Your task to perform on an android device: Open Android settings Image 0: 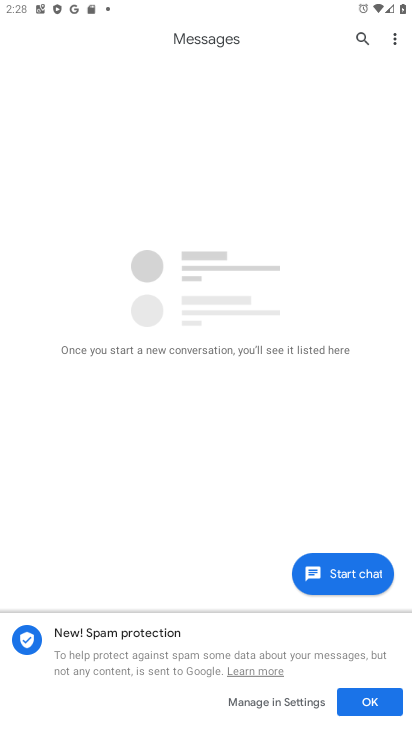
Step 0: press home button
Your task to perform on an android device: Open Android settings Image 1: 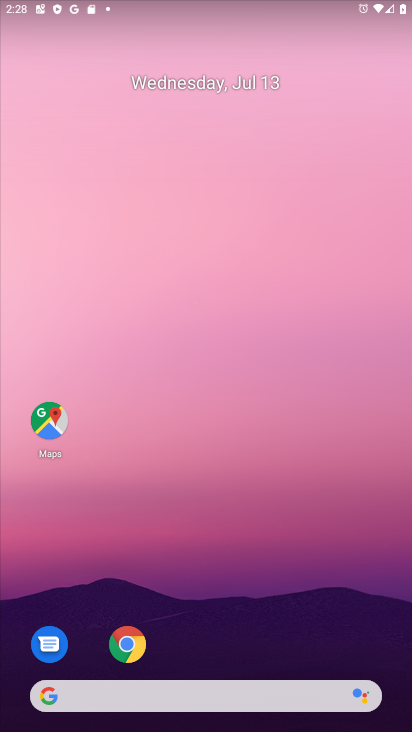
Step 1: drag from (210, 653) to (169, 42)
Your task to perform on an android device: Open Android settings Image 2: 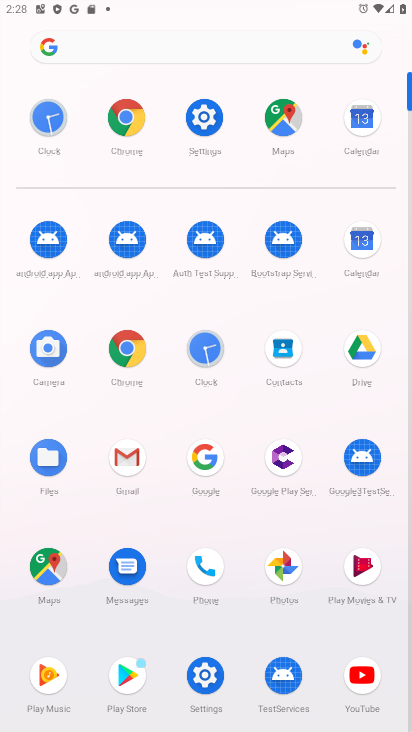
Step 2: click (216, 105)
Your task to perform on an android device: Open Android settings Image 3: 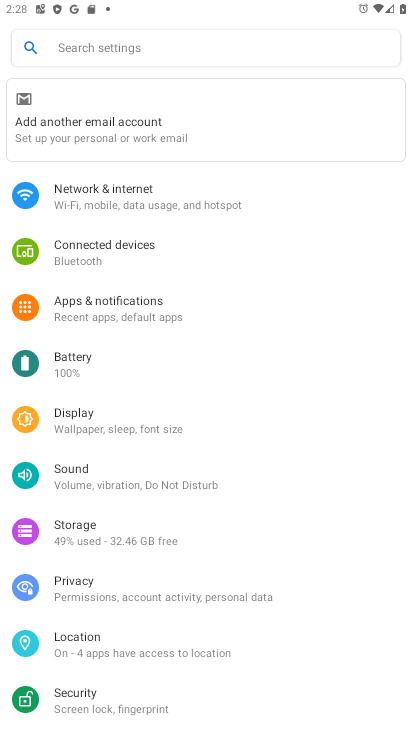
Step 3: click (109, 194)
Your task to perform on an android device: Open Android settings Image 4: 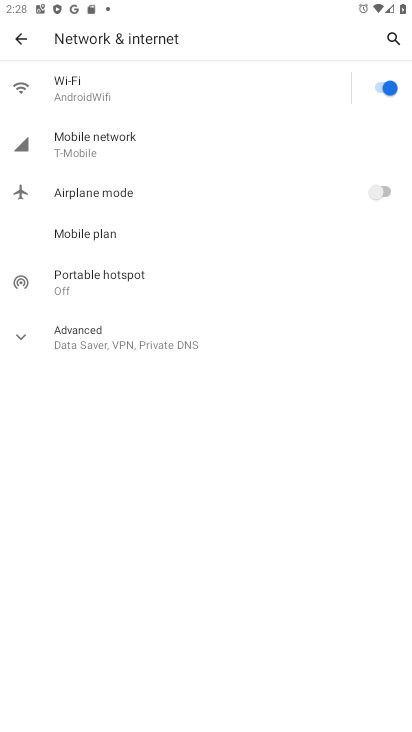
Step 4: click (16, 41)
Your task to perform on an android device: Open Android settings Image 5: 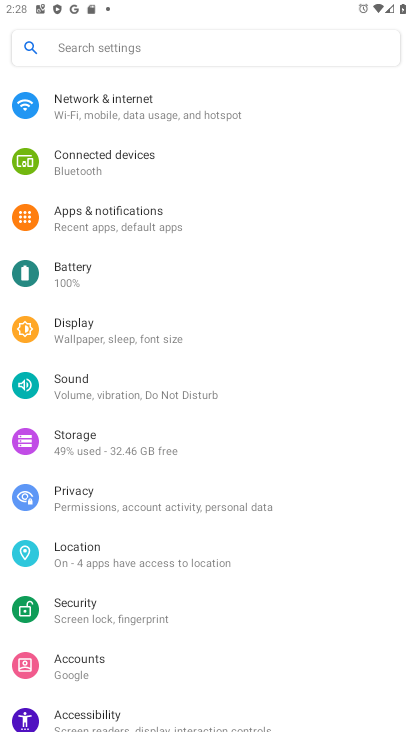
Step 5: task complete